Your task to perform on an android device: uninstall "Duolingo: language lessons" Image 0: 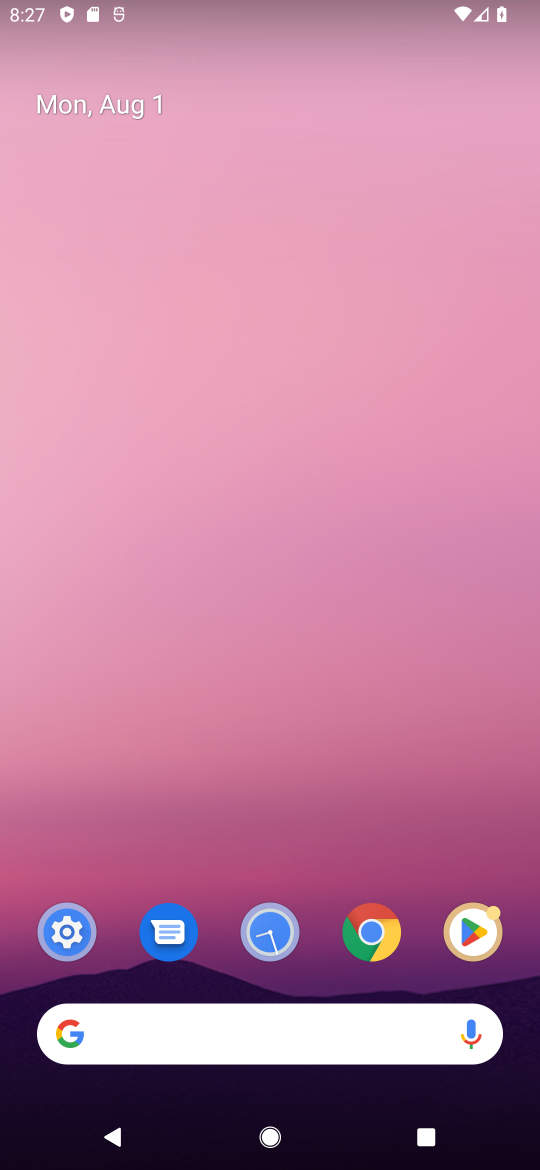
Step 0: click (465, 937)
Your task to perform on an android device: uninstall "Duolingo: language lessons" Image 1: 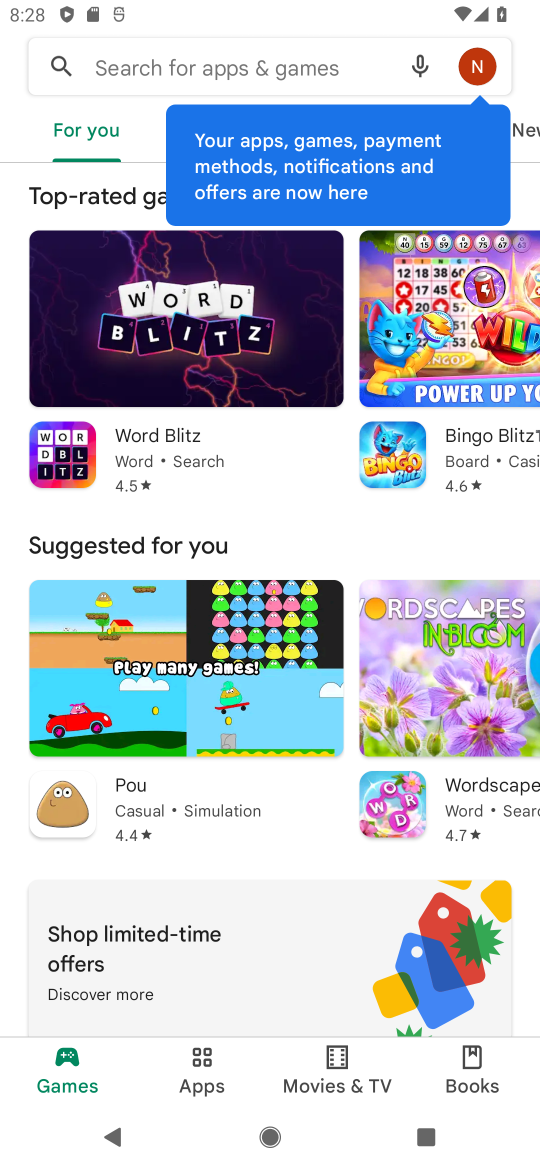
Step 1: click (239, 62)
Your task to perform on an android device: uninstall "Duolingo: language lessons" Image 2: 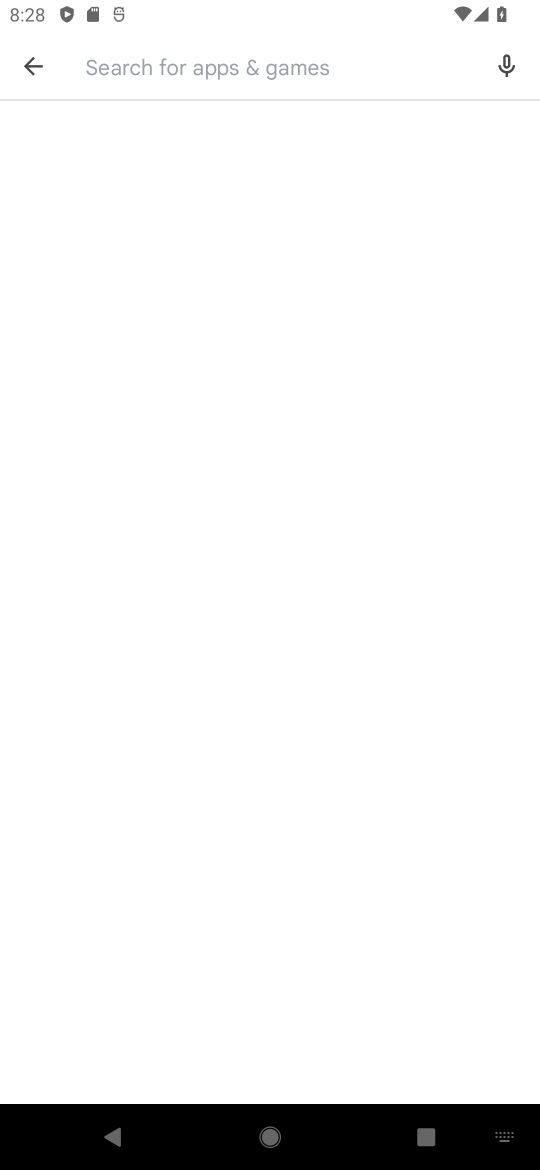
Step 2: type "duolingo: language lessons"
Your task to perform on an android device: uninstall "Duolingo: language lessons" Image 3: 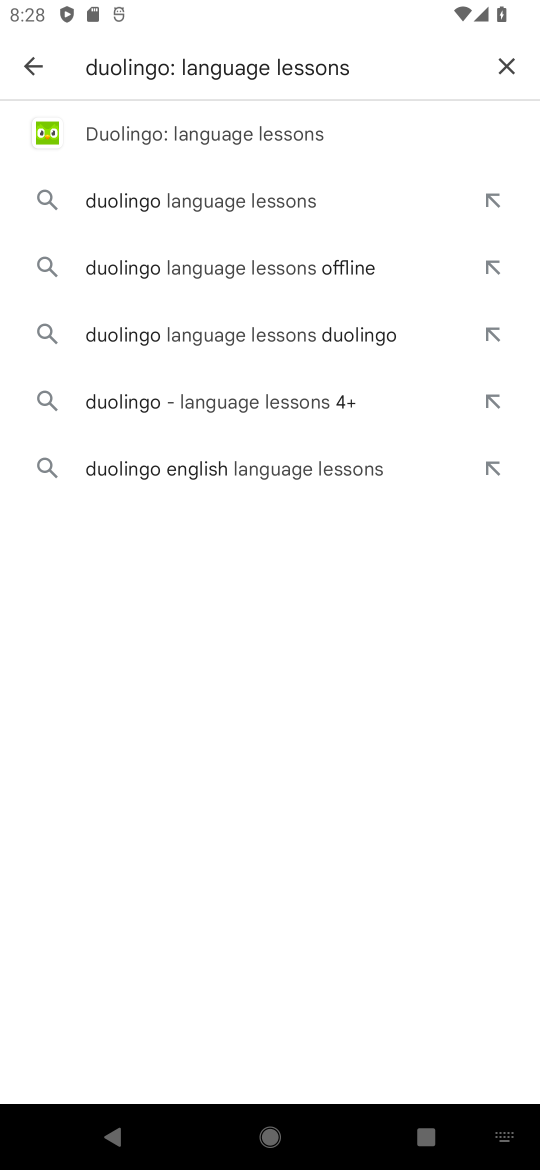
Step 3: click (118, 139)
Your task to perform on an android device: uninstall "Duolingo: language lessons" Image 4: 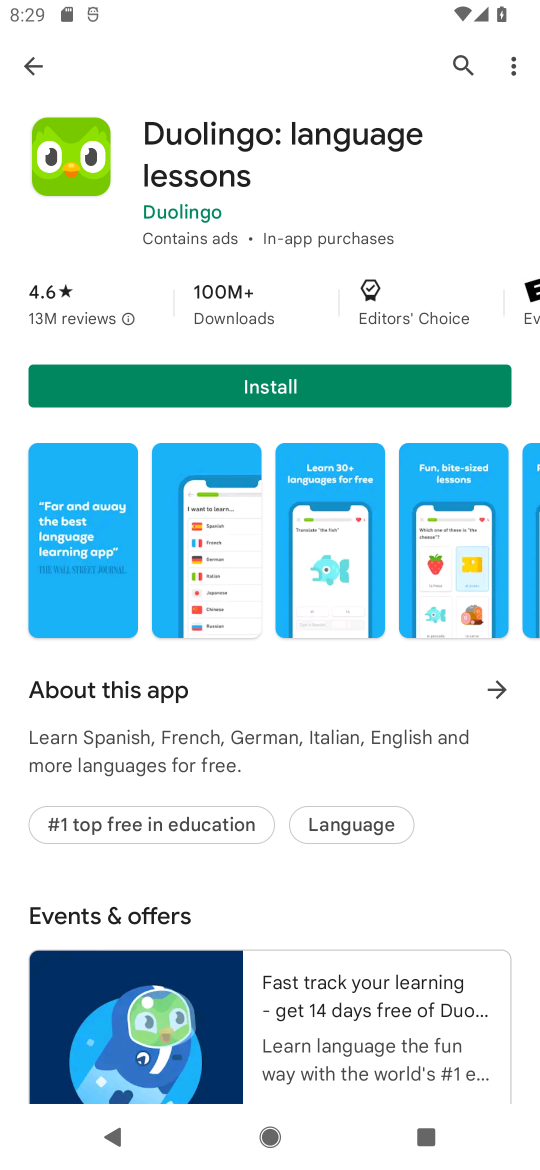
Step 4: task complete